Your task to perform on an android device: change the upload size in google photos Image 0: 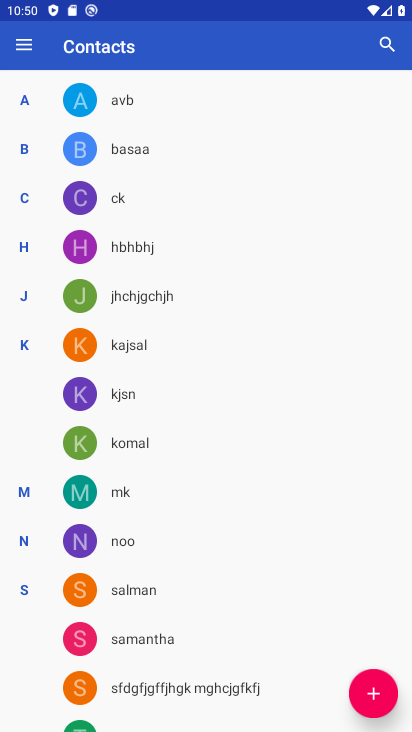
Step 0: press home button
Your task to perform on an android device: change the upload size in google photos Image 1: 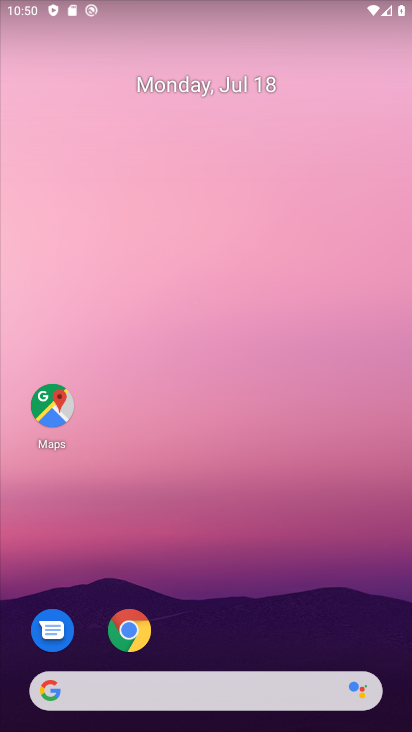
Step 1: drag from (189, 615) to (197, 266)
Your task to perform on an android device: change the upload size in google photos Image 2: 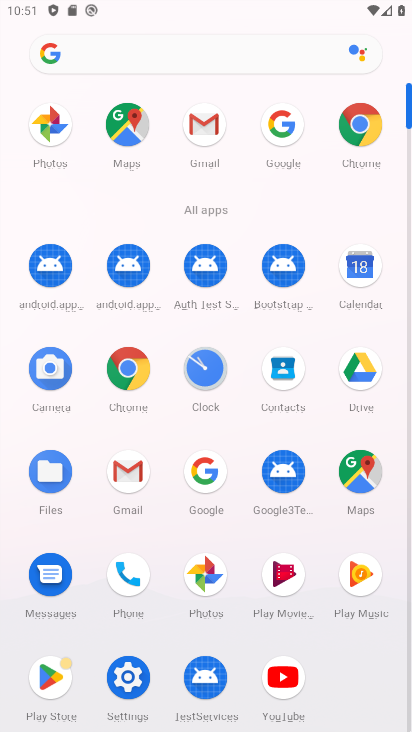
Step 2: click (210, 572)
Your task to perform on an android device: change the upload size in google photos Image 3: 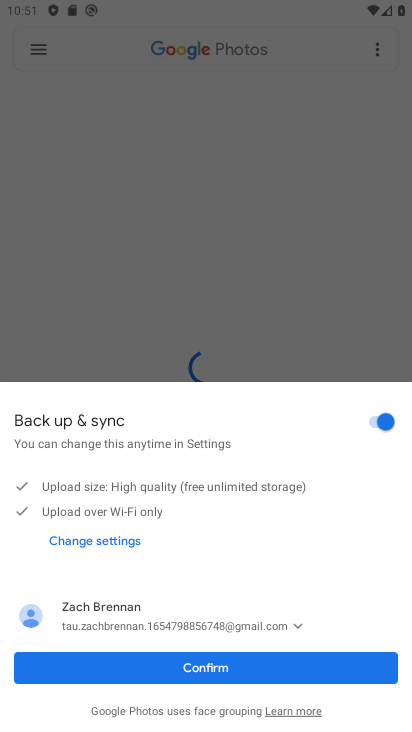
Step 3: click (207, 675)
Your task to perform on an android device: change the upload size in google photos Image 4: 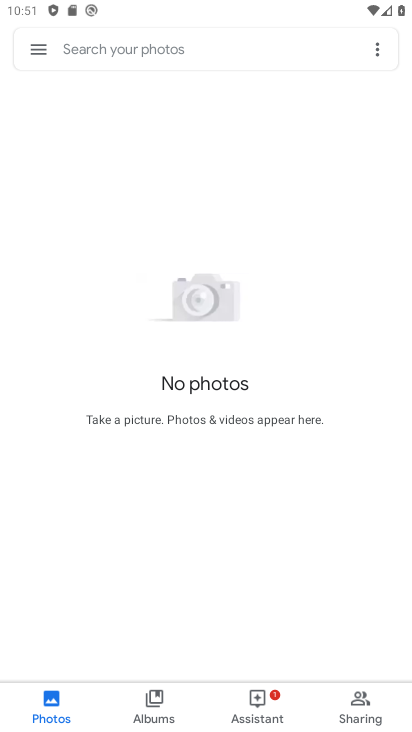
Step 4: click (380, 50)
Your task to perform on an android device: change the upload size in google photos Image 5: 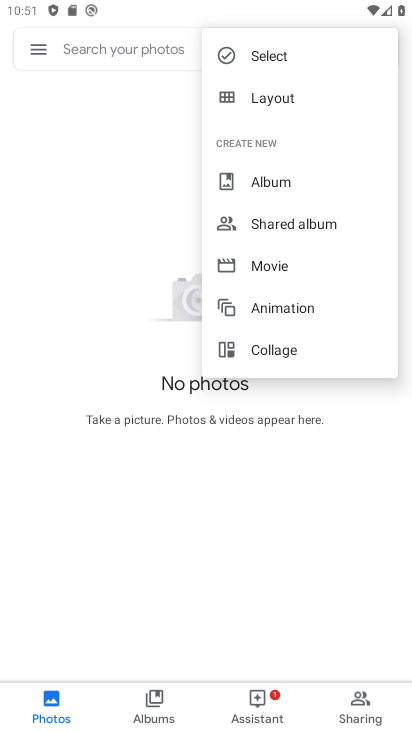
Step 5: click (161, 522)
Your task to perform on an android device: change the upload size in google photos Image 6: 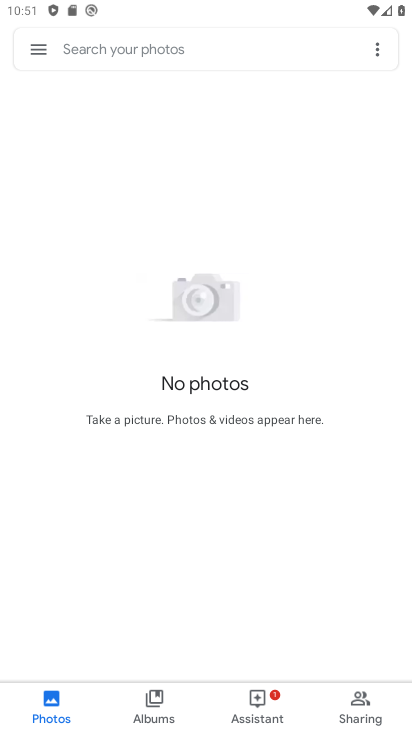
Step 6: click (35, 46)
Your task to perform on an android device: change the upload size in google photos Image 7: 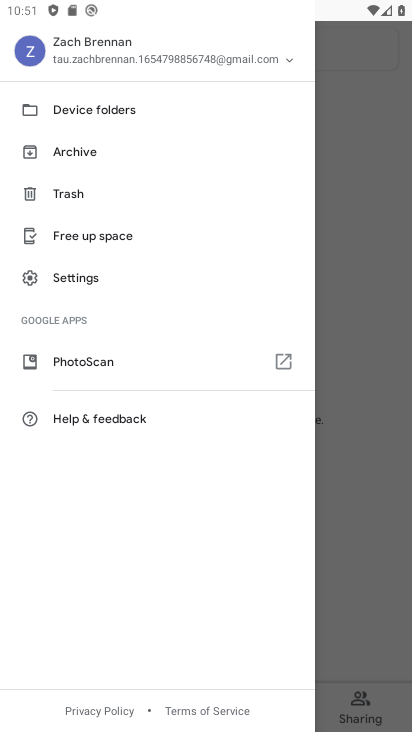
Step 7: click (78, 276)
Your task to perform on an android device: change the upload size in google photos Image 8: 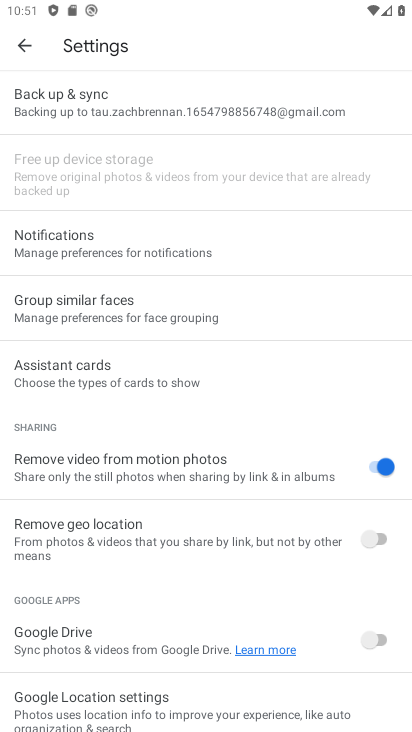
Step 8: click (67, 102)
Your task to perform on an android device: change the upload size in google photos Image 9: 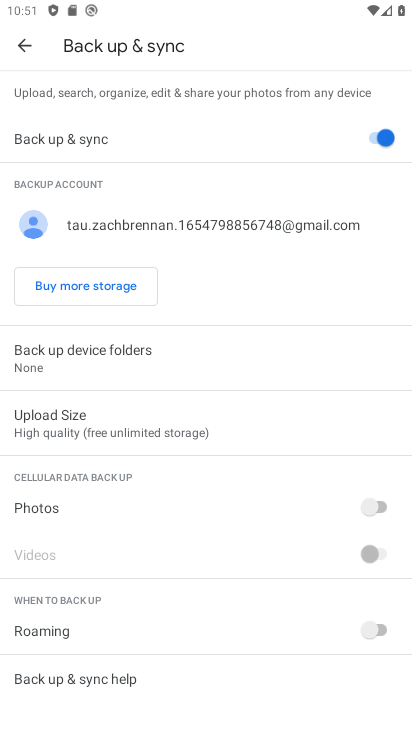
Step 9: drag from (119, 684) to (115, 362)
Your task to perform on an android device: change the upload size in google photos Image 10: 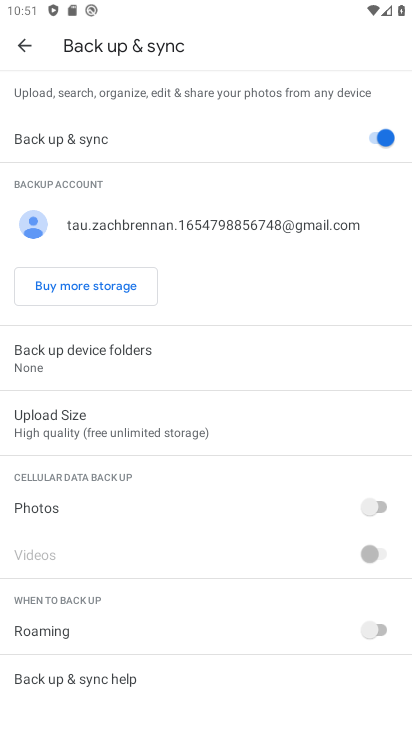
Step 10: click (82, 425)
Your task to perform on an android device: change the upload size in google photos Image 11: 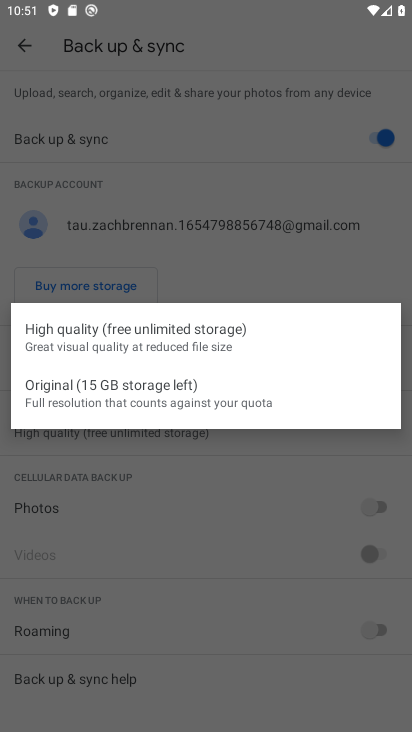
Step 11: click (66, 389)
Your task to perform on an android device: change the upload size in google photos Image 12: 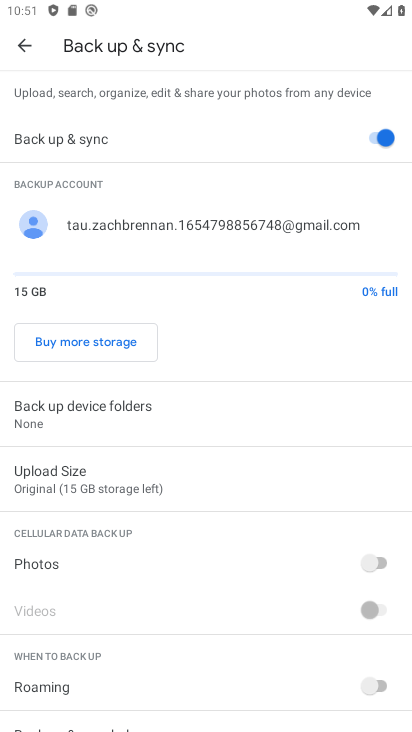
Step 12: task complete